Your task to perform on an android device: install app "Airtel Thanks" Image 0: 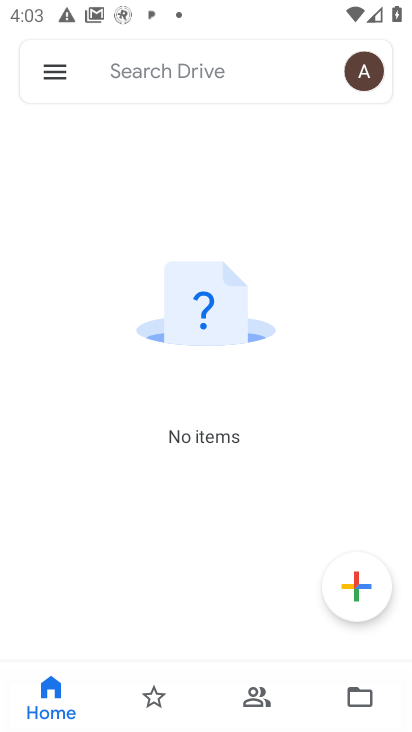
Step 0: press home button
Your task to perform on an android device: install app "Airtel Thanks" Image 1: 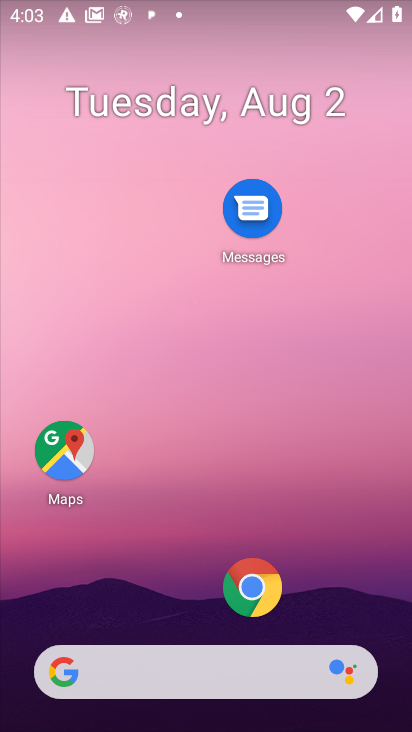
Step 1: drag from (173, 617) to (240, 236)
Your task to perform on an android device: install app "Airtel Thanks" Image 2: 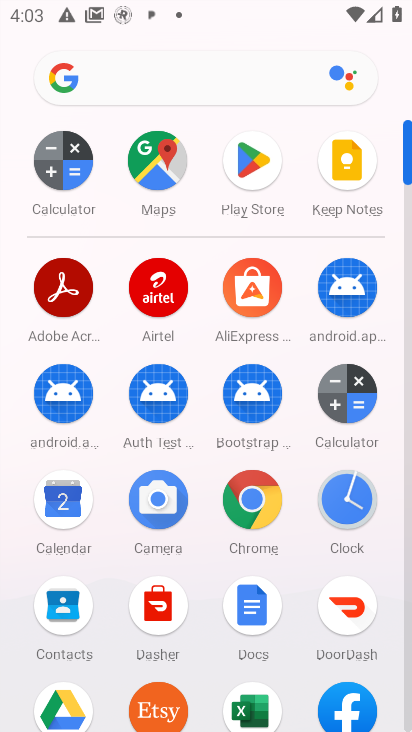
Step 2: click (260, 171)
Your task to perform on an android device: install app "Airtel Thanks" Image 3: 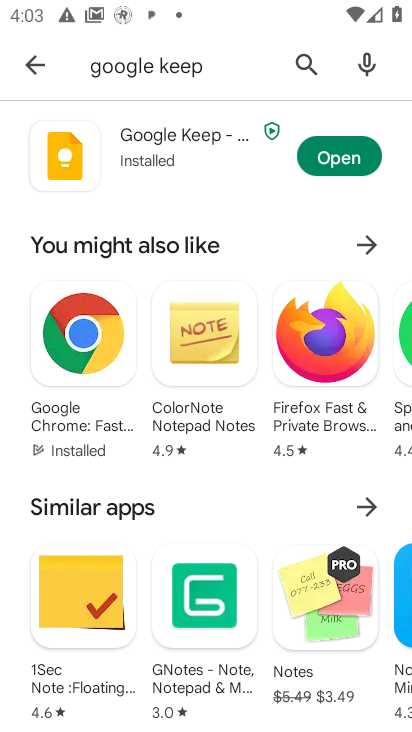
Step 3: click (298, 76)
Your task to perform on an android device: install app "Airtel Thanks" Image 4: 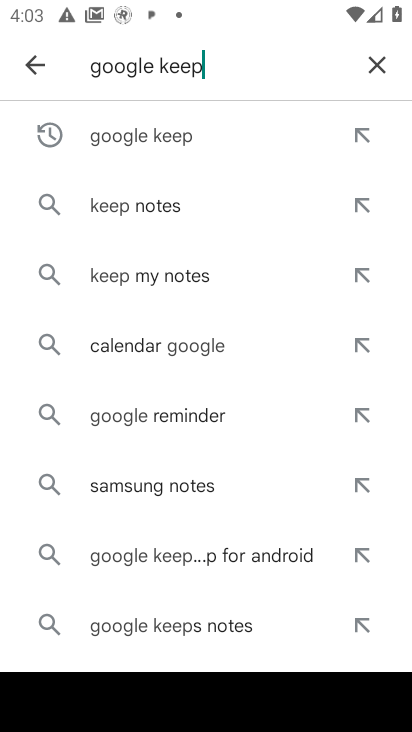
Step 4: click (375, 68)
Your task to perform on an android device: install app "Airtel Thanks" Image 5: 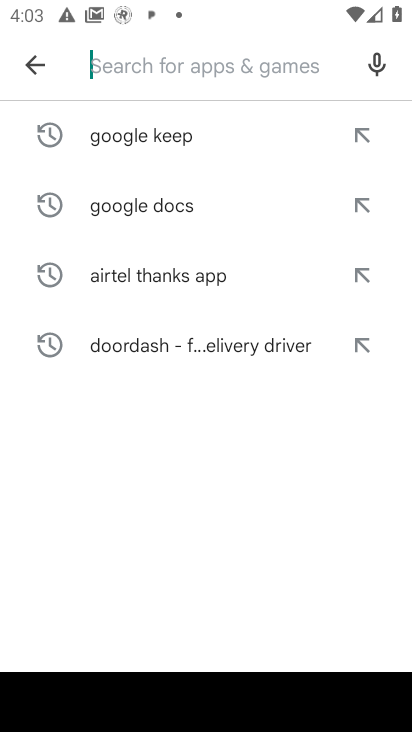
Step 5: type "Airtel Thanks"
Your task to perform on an android device: install app "Airtel Thanks" Image 6: 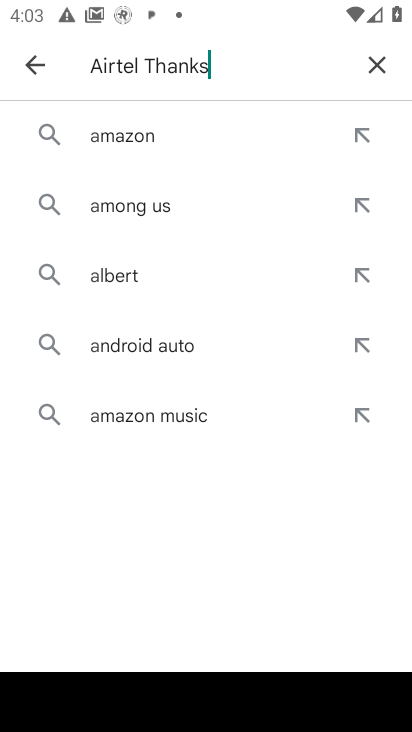
Step 6: type ""
Your task to perform on an android device: install app "Airtel Thanks" Image 7: 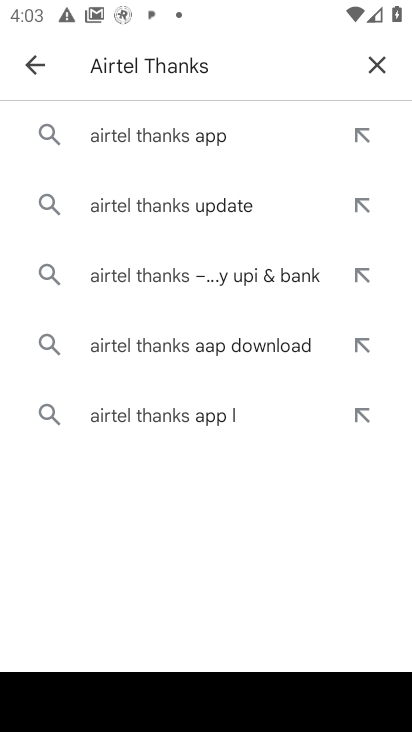
Step 7: click (222, 143)
Your task to perform on an android device: install app "Airtel Thanks" Image 8: 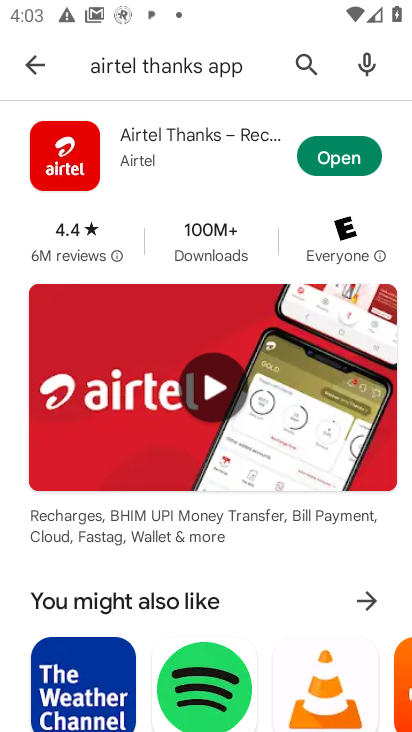
Step 8: task complete